Your task to perform on an android device: What's the latest video from GameSpot eSports? Image 0: 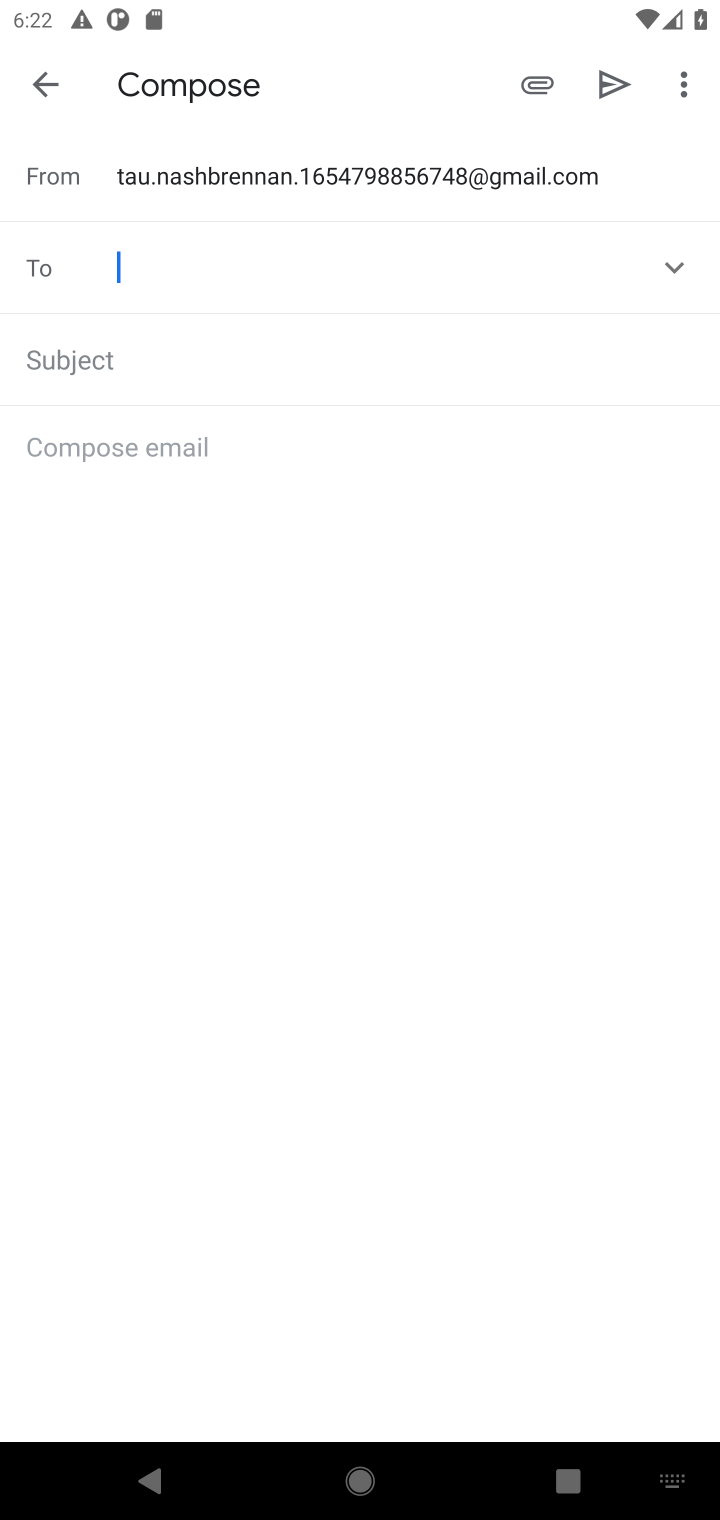
Step 0: press home button
Your task to perform on an android device: What's the latest video from GameSpot eSports? Image 1: 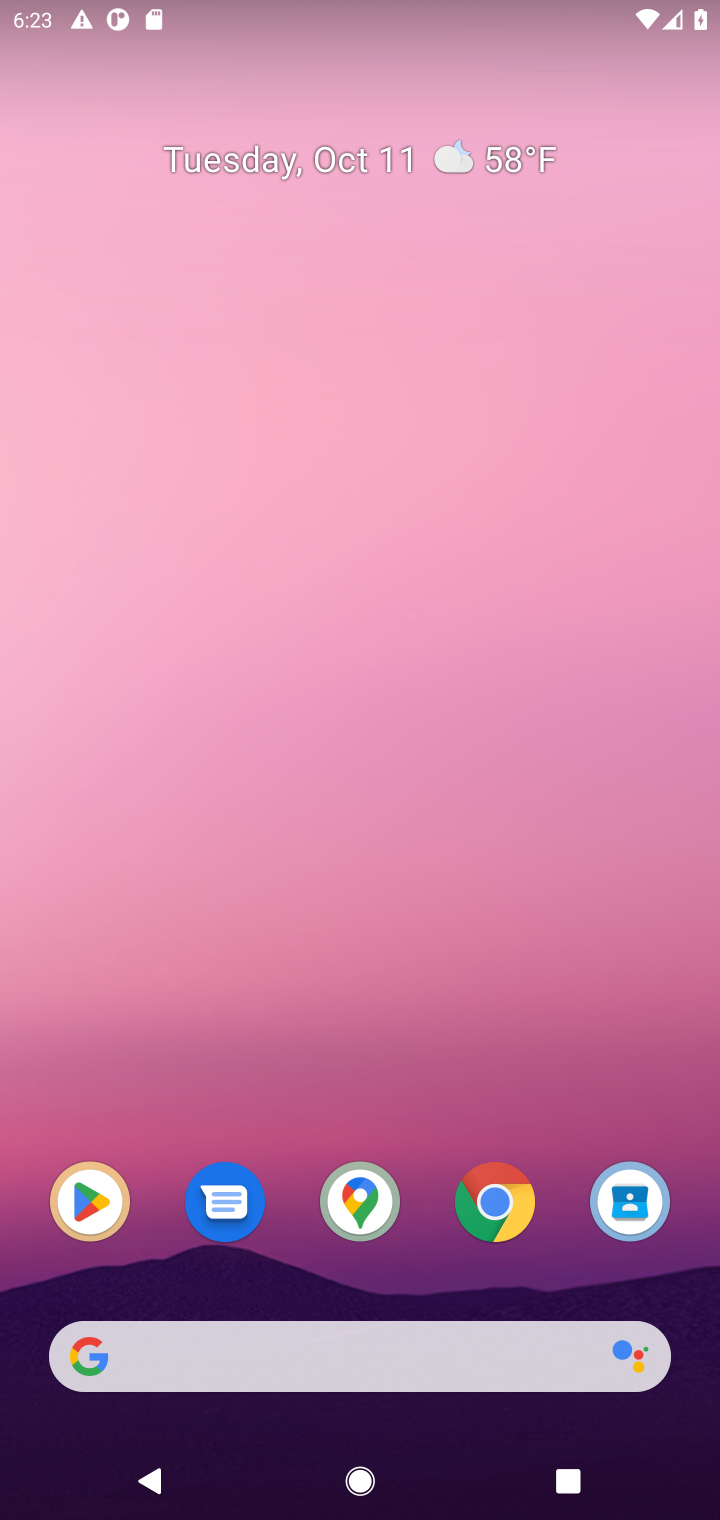
Step 1: drag from (418, 1150) to (341, 195)
Your task to perform on an android device: What's the latest video from GameSpot eSports? Image 2: 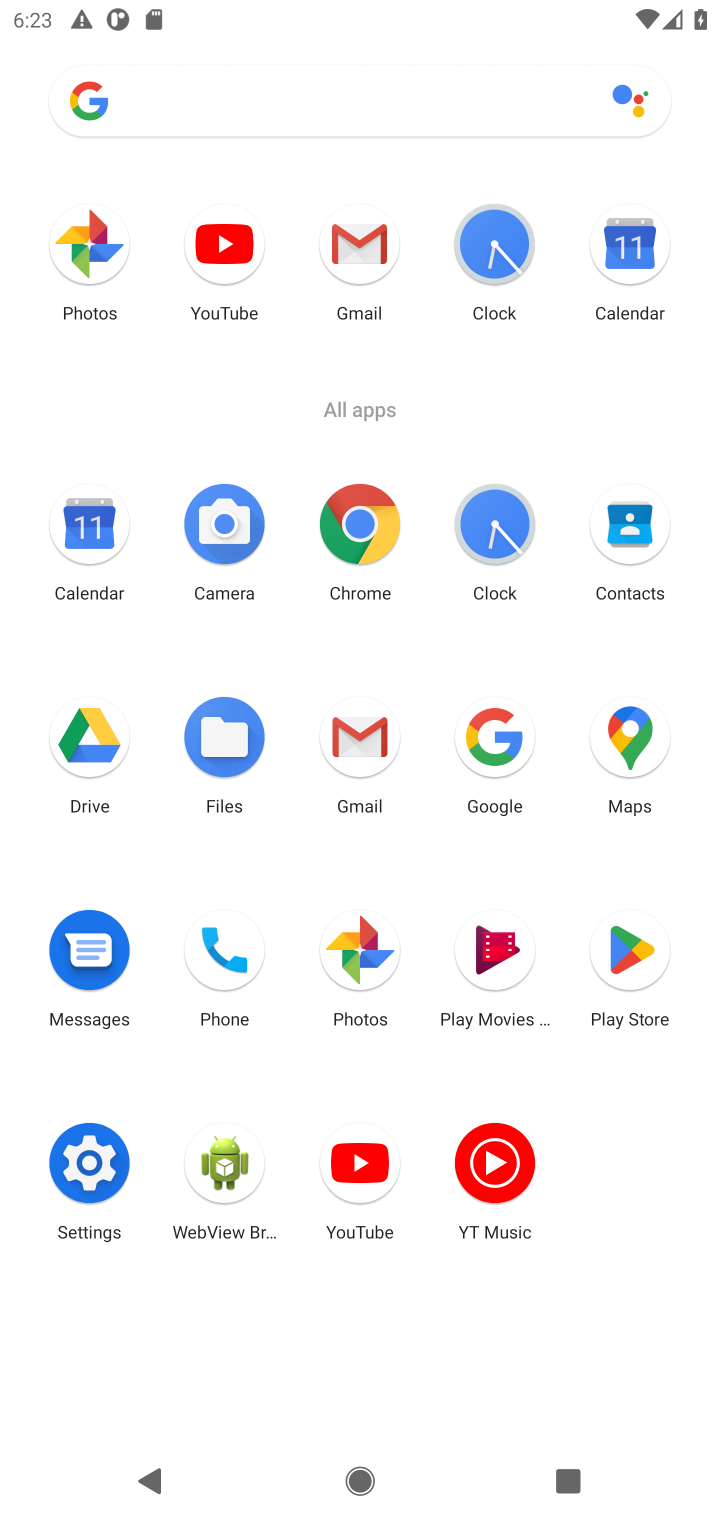
Step 2: click (339, 1166)
Your task to perform on an android device: What's the latest video from GameSpot eSports? Image 3: 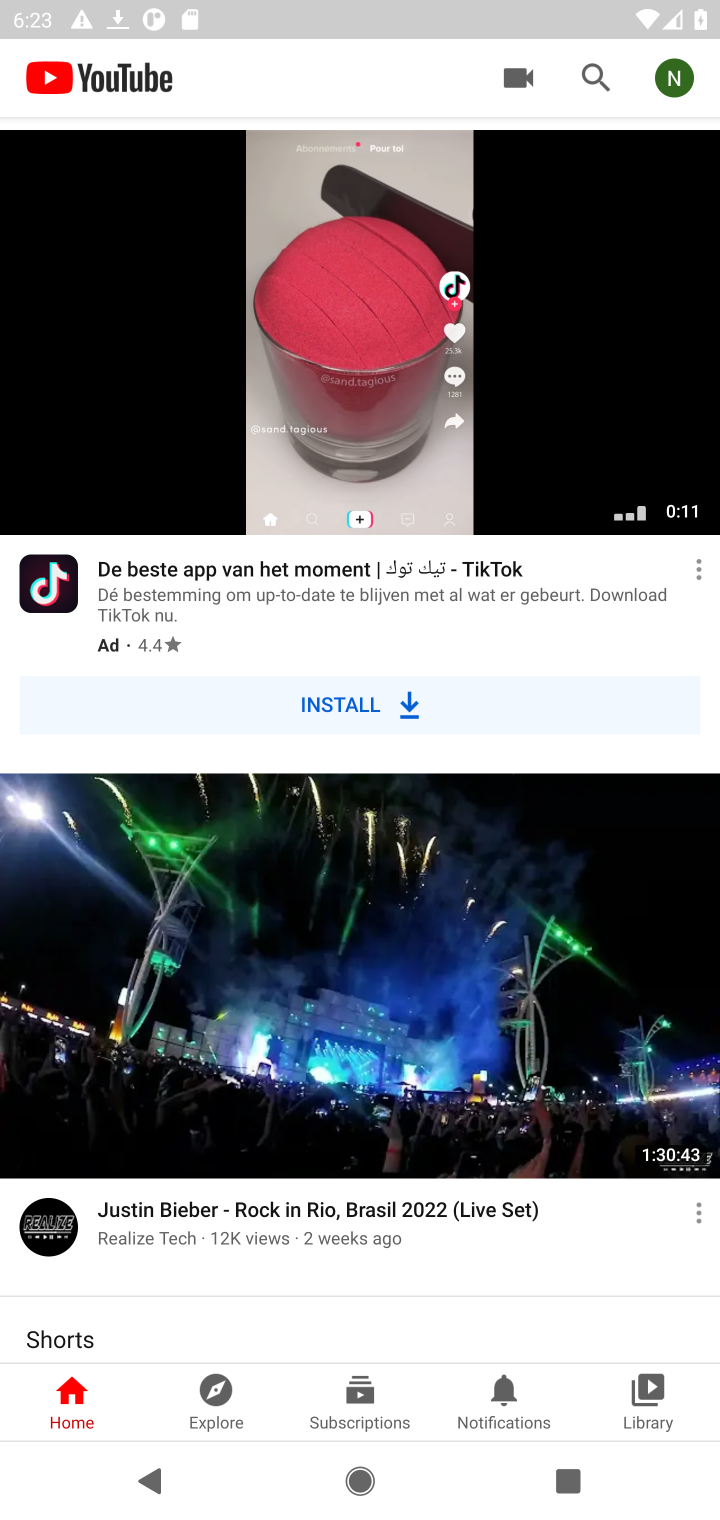
Step 3: click (604, 81)
Your task to perform on an android device: What's the latest video from GameSpot eSports? Image 4: 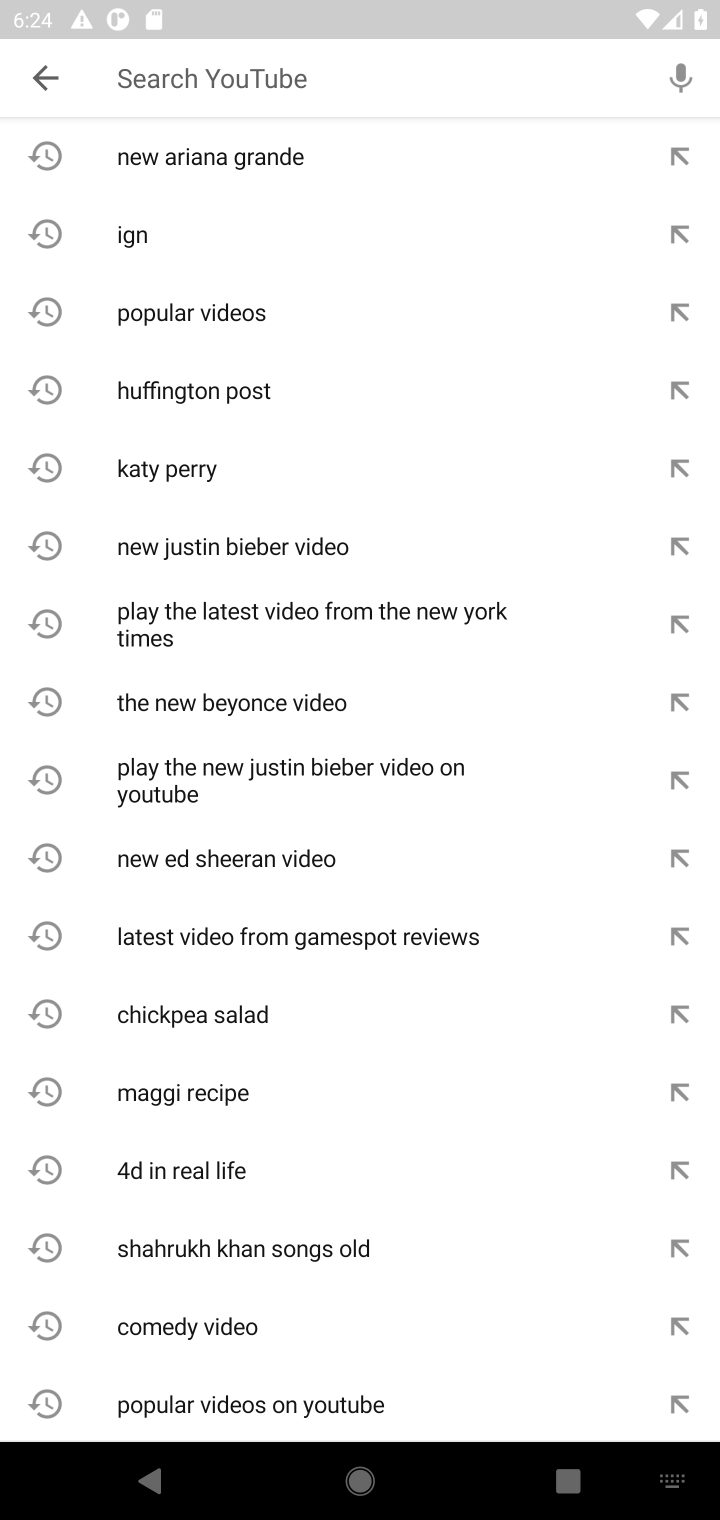
Step 4: type "GameSpot eSports"
Your task to perform on an android device: What's the latest video from GameSpot eSports? Image 5: 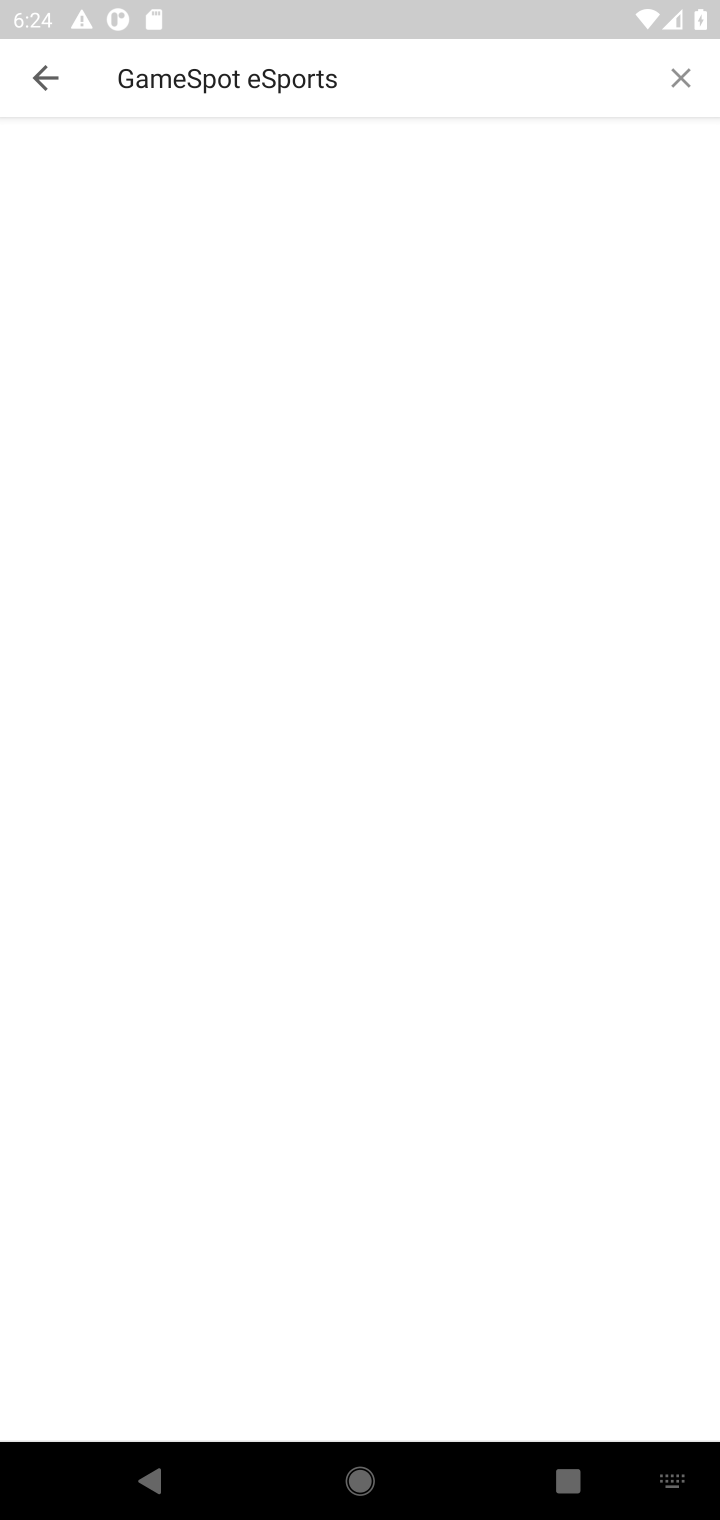
Step 5: press enter
Your task to perform on an android device: What's the latest video from GameSpot eSports? Image 6: 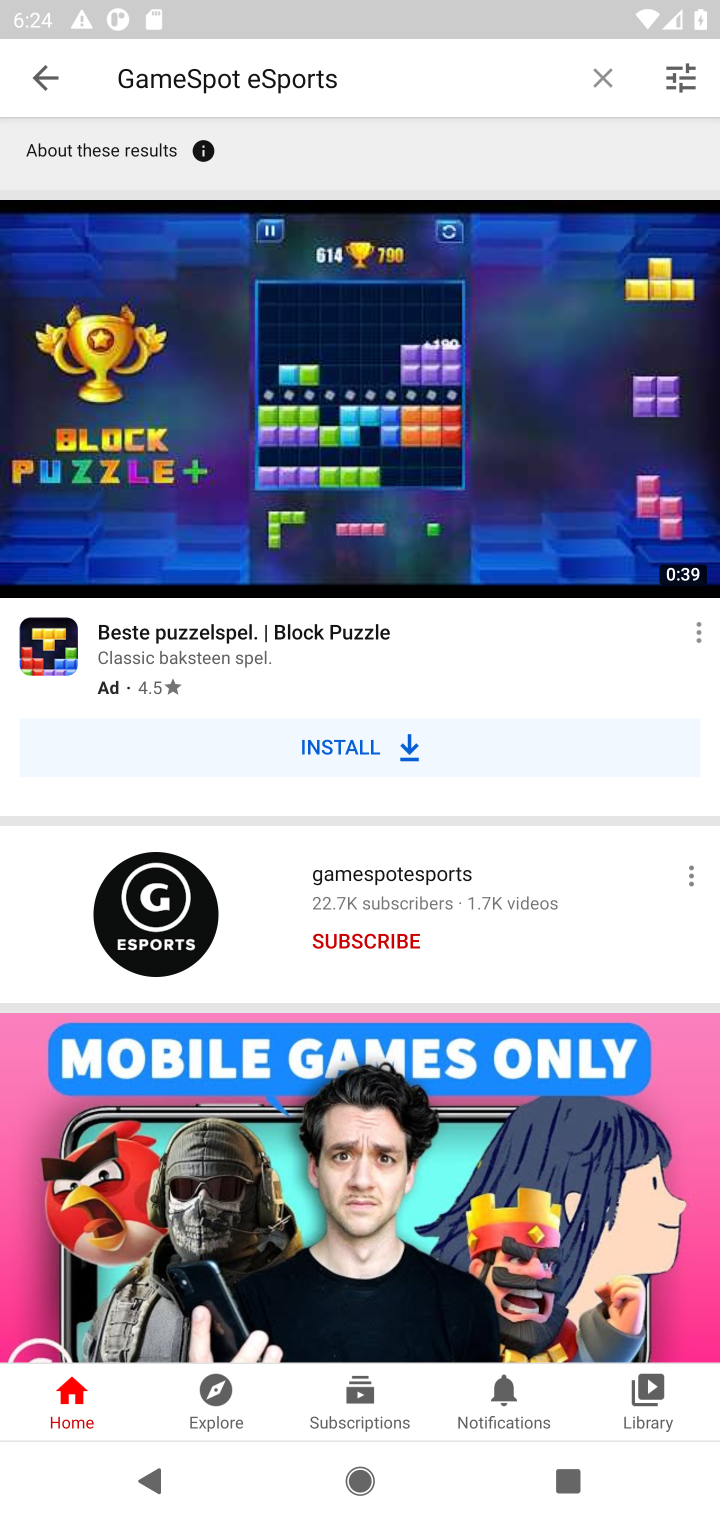
Step 6: click (408, 897)
Your task to perform on an android device: What's the latest video from GameSpot eSports? Image 7: 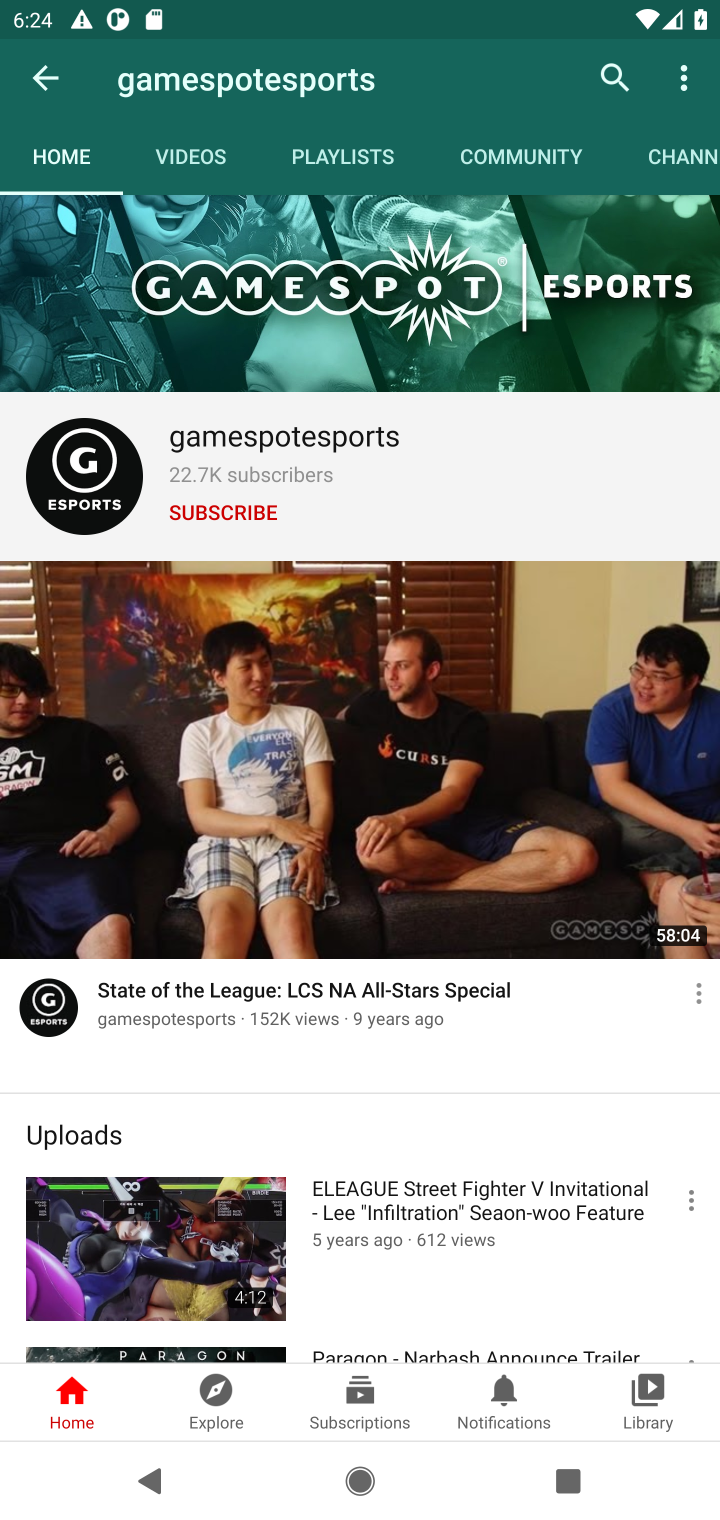
Step 7: click (223, 162)
Your task to perform on an android device: What's the latest video from GameSpot eSports? Image 8: 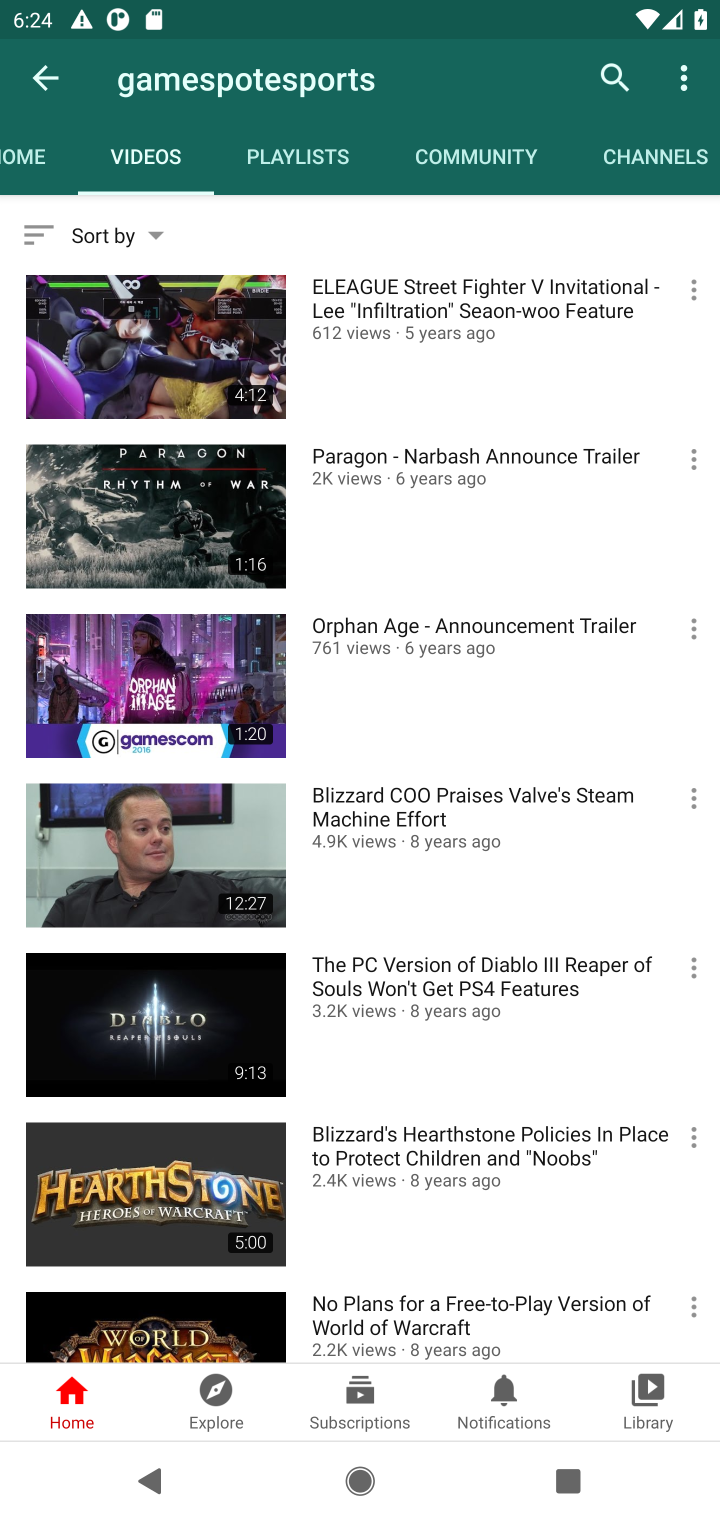
Step 8: click (350, 334)
Your task to perform on an android device: What's the latest video from GameSpot eSports? Image 9: 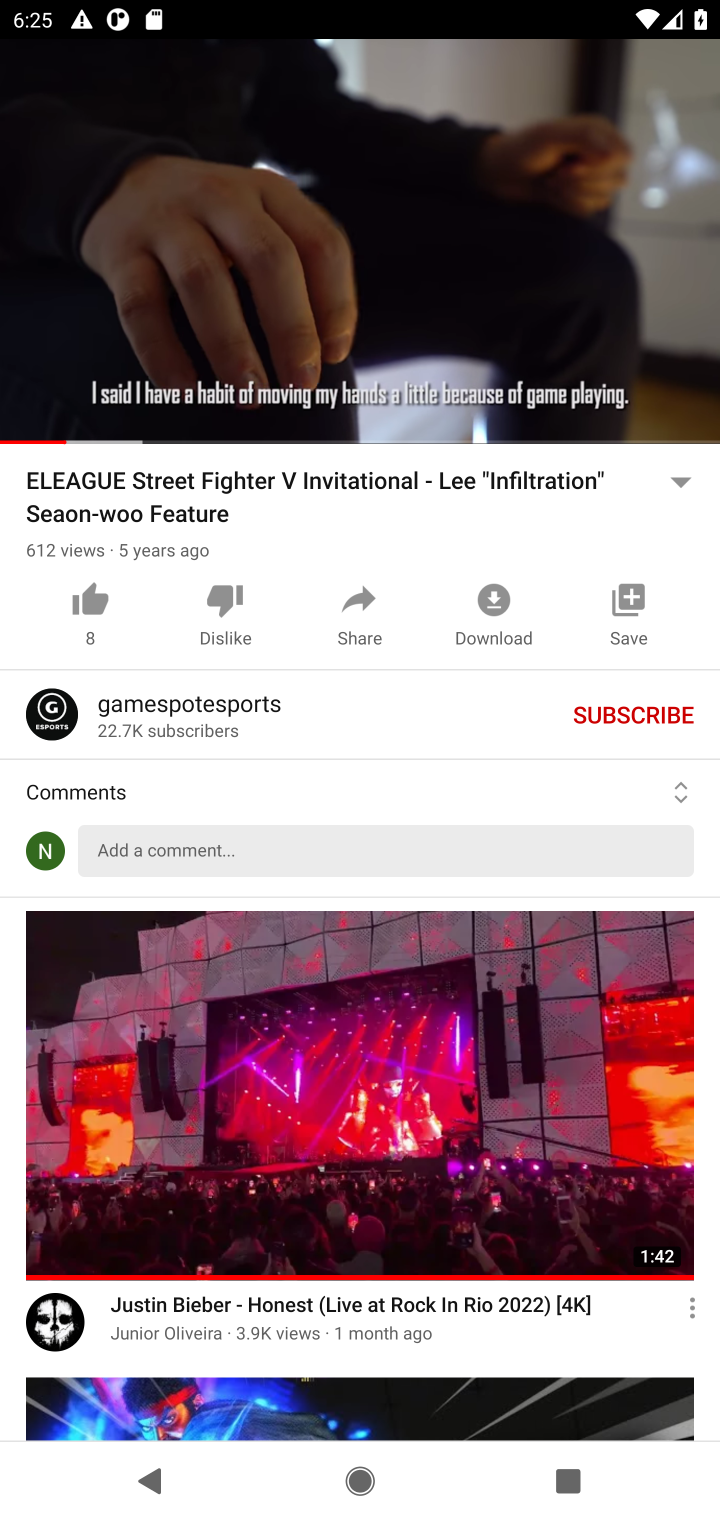
Step 9: task complete